Your task to perform on an android device: open a new tab in the chrome app Image 0: 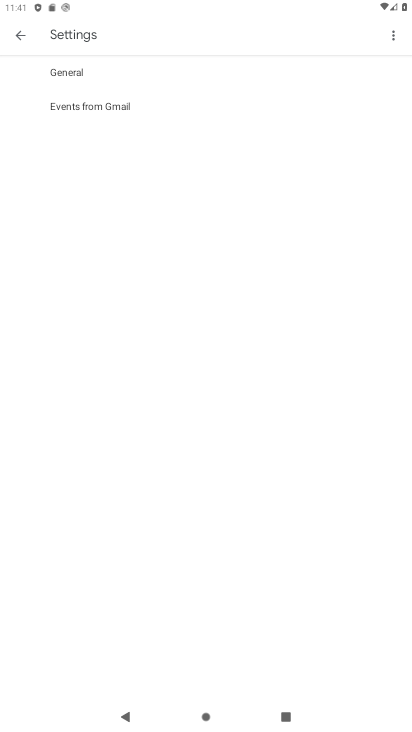
Step 0: press home button
Your task to perform on an android device: open a new tab in the chrome app Image 1: 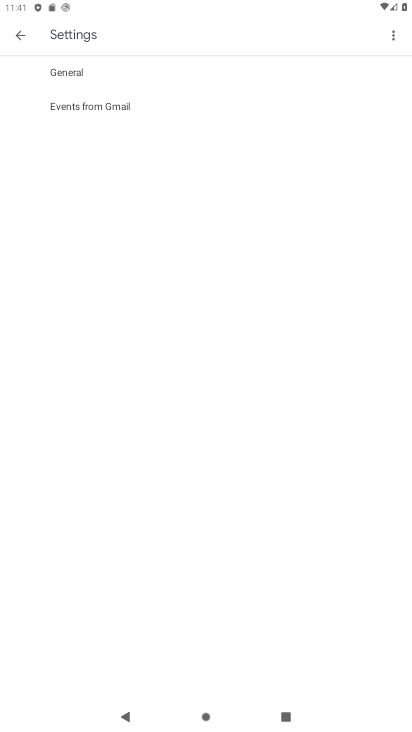
Step 1: press home button
Your task to perform on an android device: open a new tab in the chrome app Image 2: 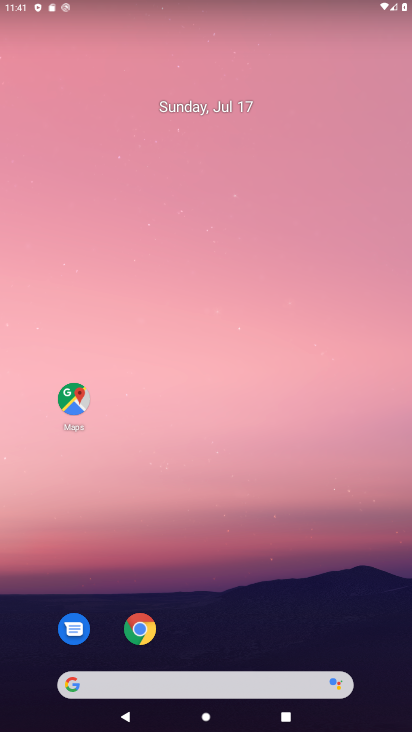
Step 2: click (148, 620)
Your task to perform on an android device: open a new tab in the chrome app Image 3: 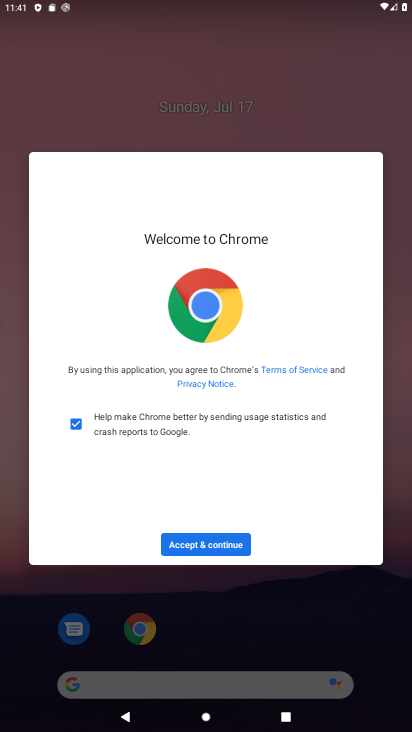
Step 3: click (220, 542)
Your task to perform on an android device: open a new tab in the chrome app Image 4: 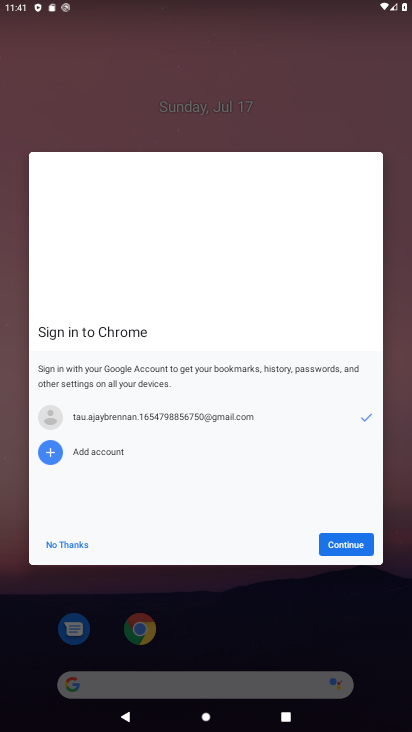
Step 4: click (351, 543)
Your task to perform on an android device: open a new tab in the chrome app Image 5: 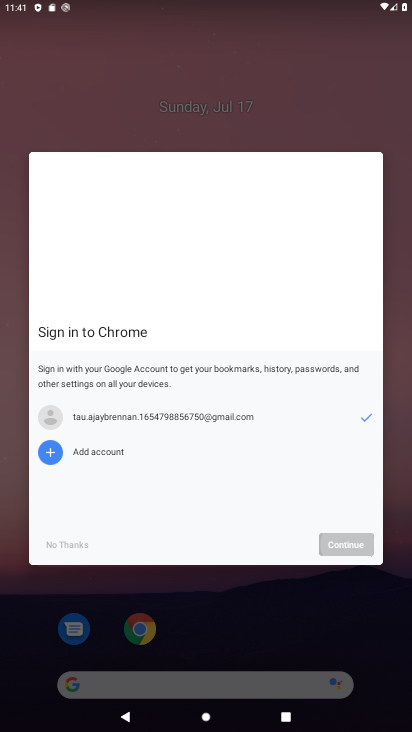
Step 5: click (351, 543)
Your task to perform on an android device: open a new tab in the chrome app Image 6: 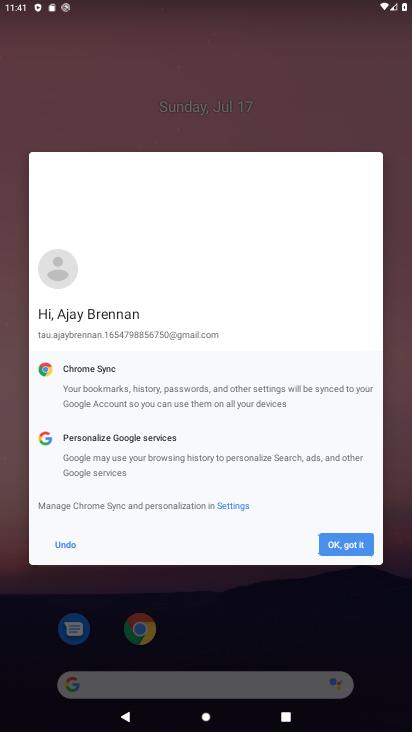
Step 6: click (351, 546)
Your task to perform on an android device: open a new tab in the chrome app Image 7: 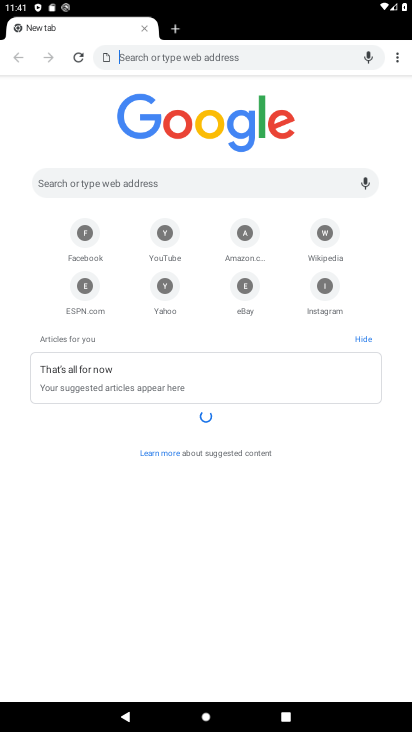
Step 7: click (403, 57)
Your task to perform on an android device: open a new tab in the chrome app Image 8: 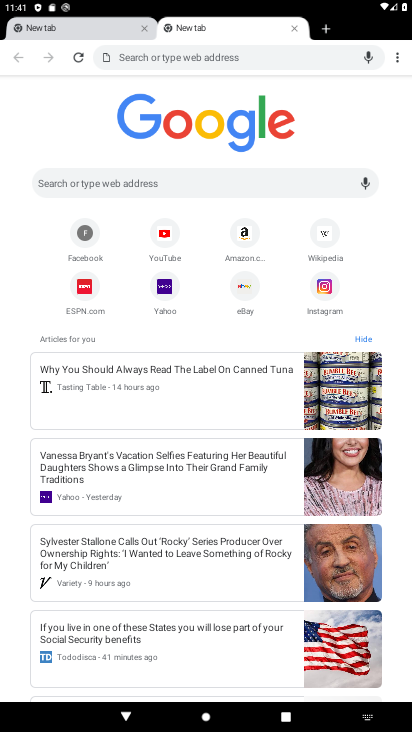
Step 8: task complete